Your task to perform on an android device: Open Yahoo.com Image 0: 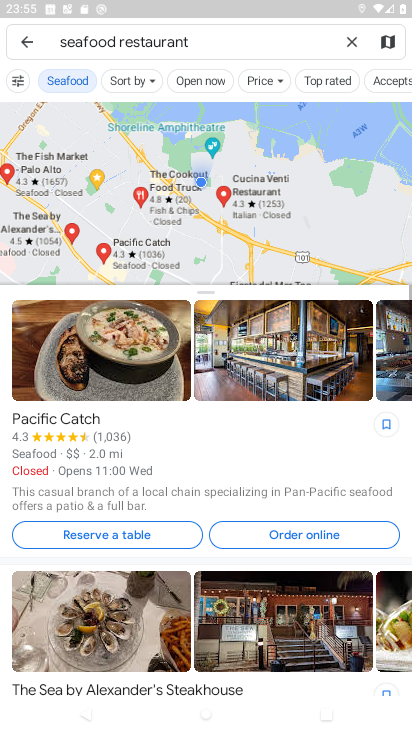
Step 0: press home button
Your task to perform on an android device: Open Yahoo.com Image 1: 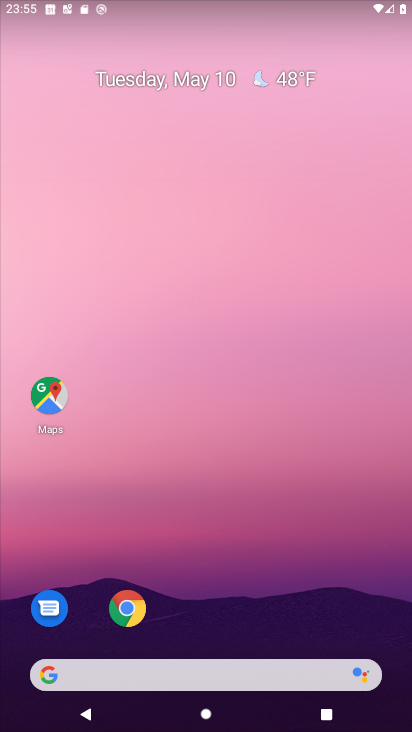
Step 1: click (133, 605)
Your task to perform on an android device: Open Yahoo.com Image 2: 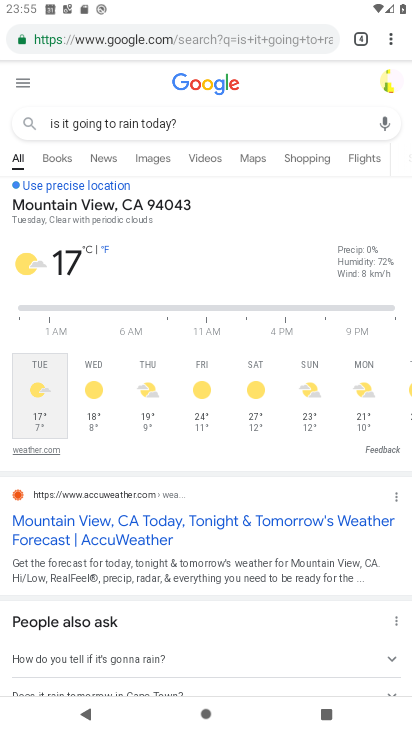
Step 2: click (364, 45)
Your task to perform on an android device: Open Yahoo.com Image 3: 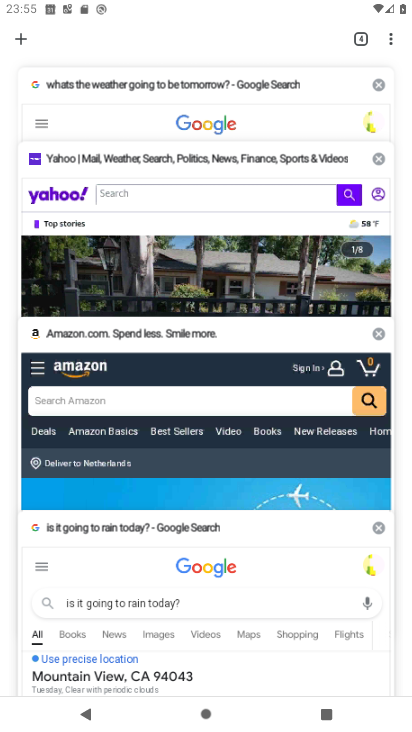
Step 3: click (299, 168)
Your task to perform on an android device: Open Yahoo.com Image 4: 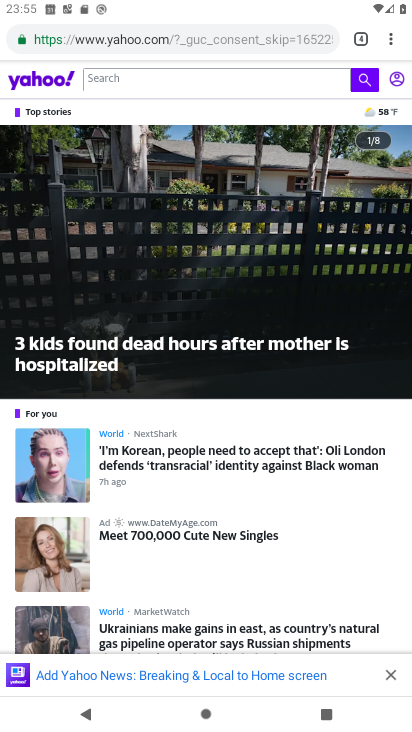
Step 4: task complete